Your task to perform on an android device: What's on my calendar tomorrow? Image 0: 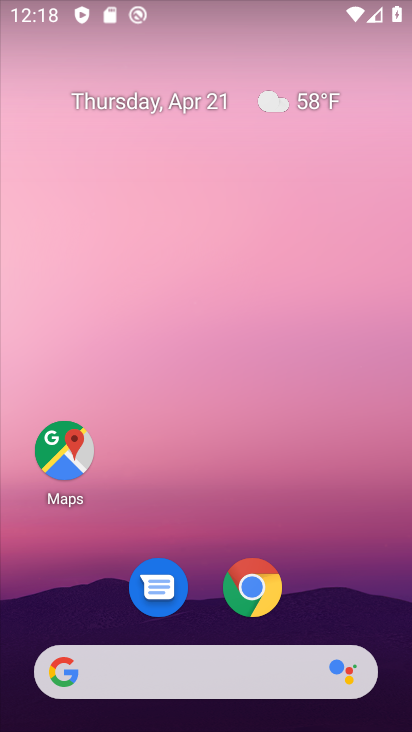
Step 0: click (257, 337)
Your task to perform on an android device: What's on my calendar tomorrow? Image 1: 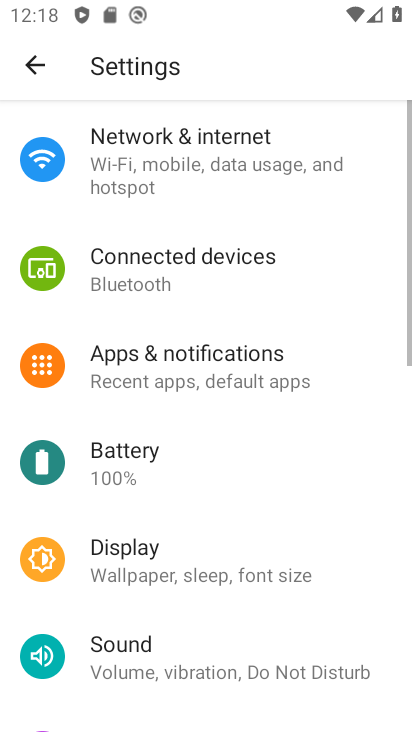
Step 1: press home button
Your task to perform on an android device: What's on my calendar tomorrow? Image 2: 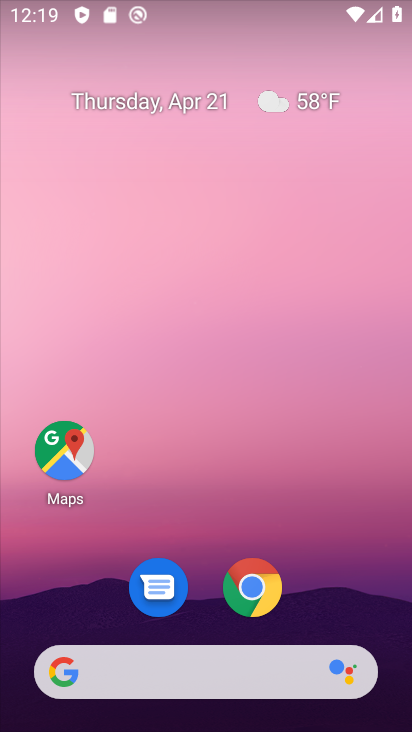
Step 2: drag from (209, 575) to (301, 6)
Your task to perform on an android device: What's on my calendar tomorrow? Image 3: 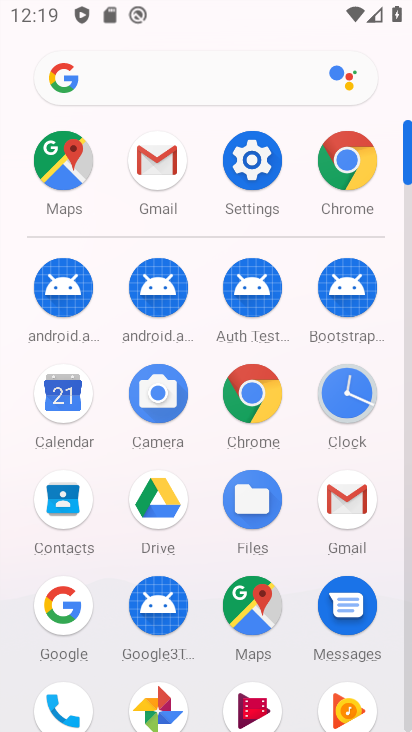
Step 3: click (68, 413)
Your task to perform on an android device: What's on my calendar tomorrow? Image 4: 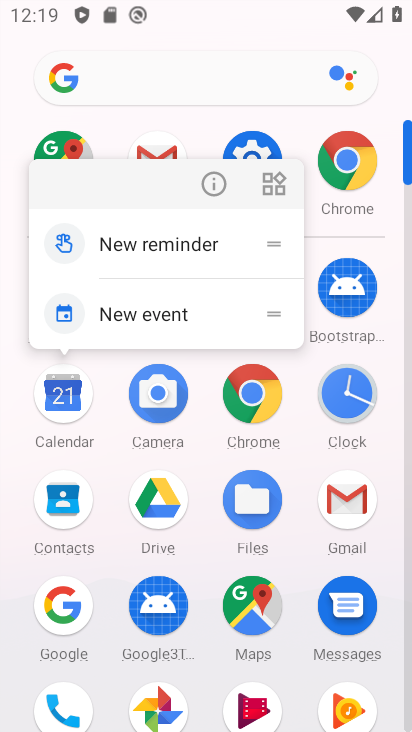
Step 4: click (68, 413)
Your task to perform on an android device: What's on my calendar tomorrow? Image 5: 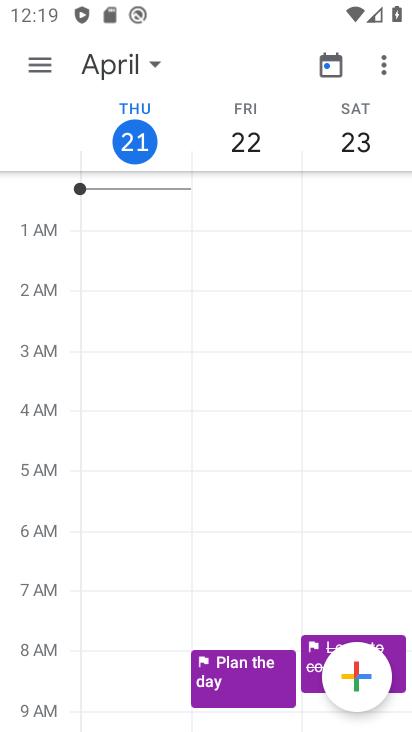
Step 5: task complete